Your task to perform on an android device: Clear the shopping cart on newegg.com. Image 0: 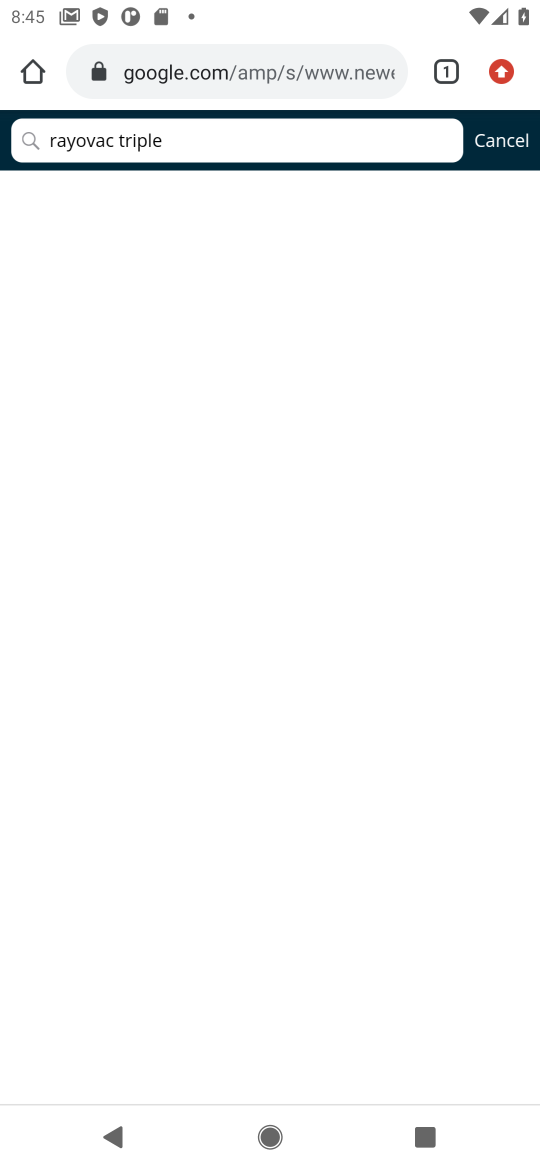
Step 0: click (457, 885)
Your task to perform on an android device: Clear the shopping cart on newegg.com. Image 1: 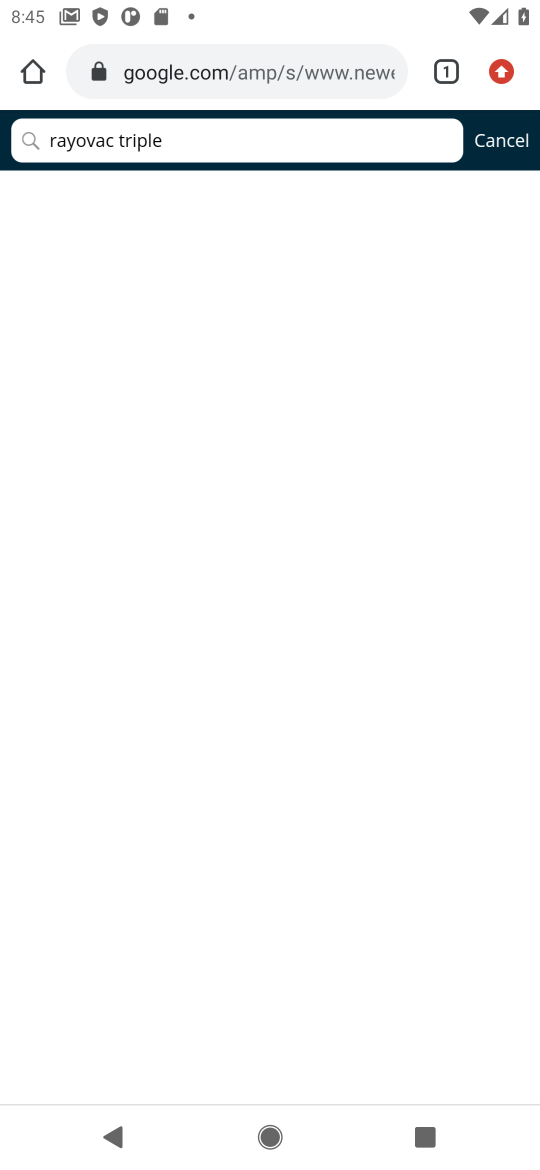
Step 1: click (249, 60)
Your task to perform on an android device: Clear the shopping cart on newegg.com. Image 2: 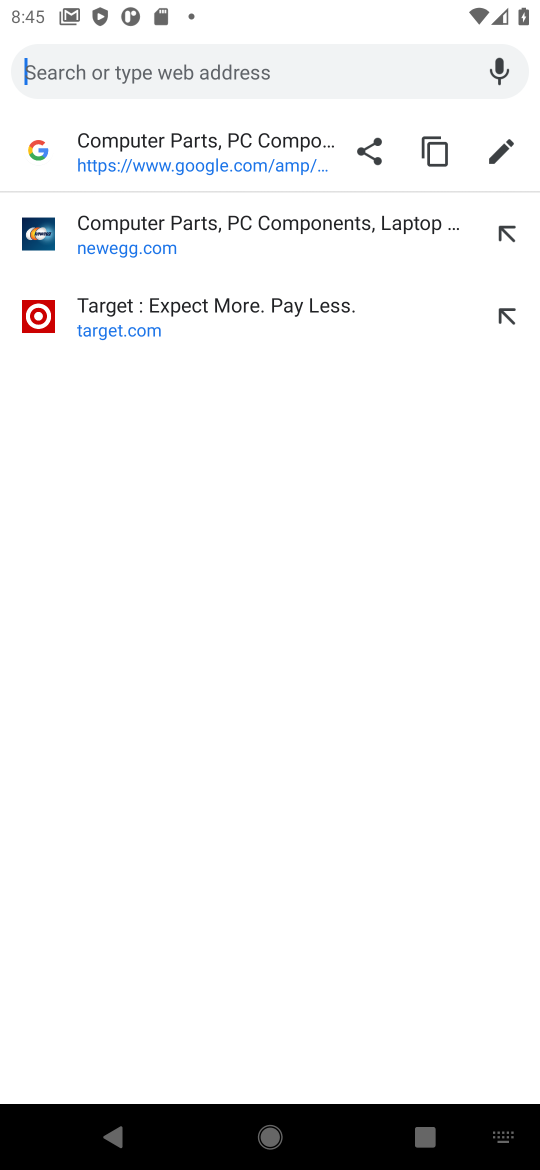
Step 2: type "newegg"
Your task to perform on an android device: Clear the shopping cart on newegg.com. Image 3: 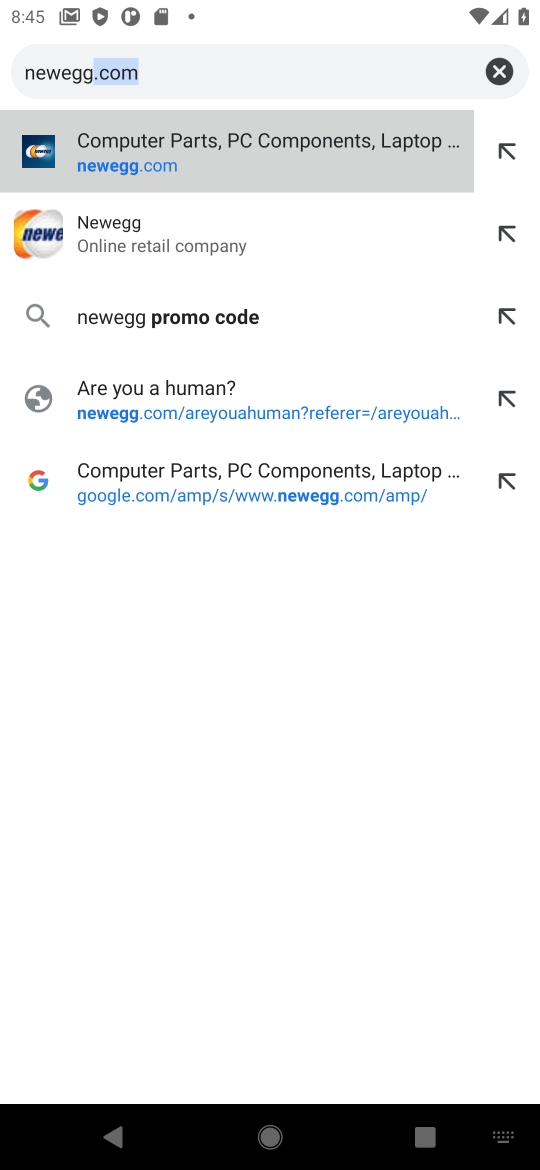
Step 3: type ""
Your task to perform on an android device: Clear the shopping cart on newegg.com. Image 4: 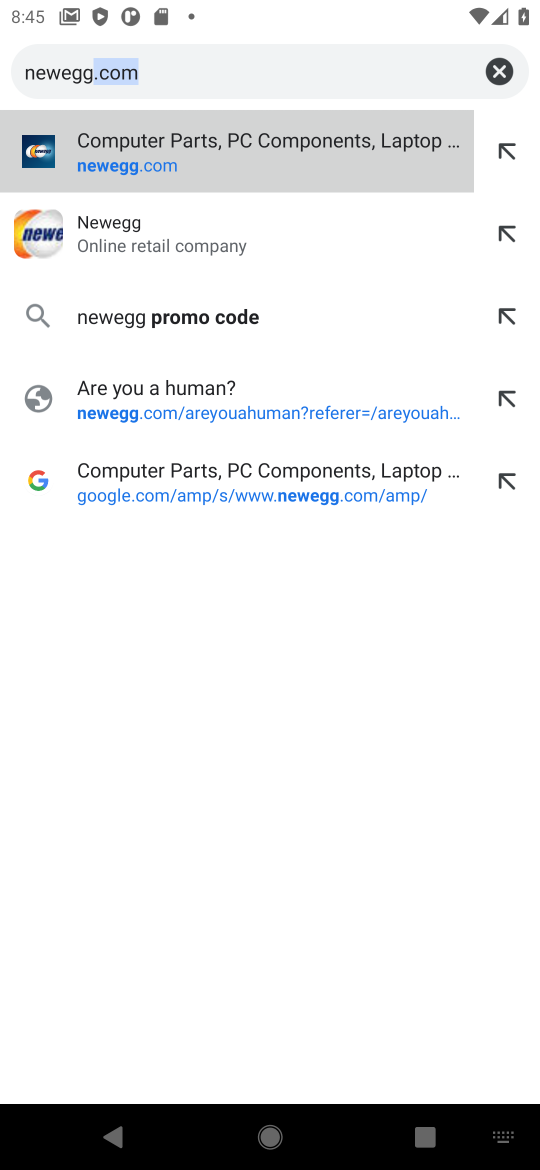
Step 4: click (173, 259)
Your task to perform on an android device: Clear the shopping cart on newegg.com. Image 5: 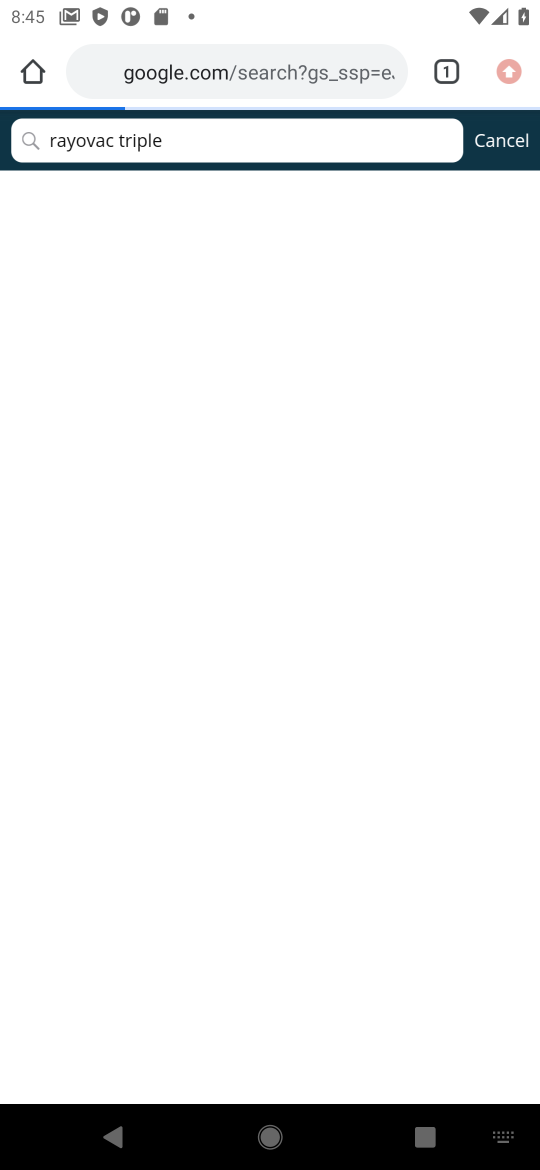
Step 5: click (176, 243)
Your task to perform on an android device: Clear the shopping cart on newegg.com. Image 6: 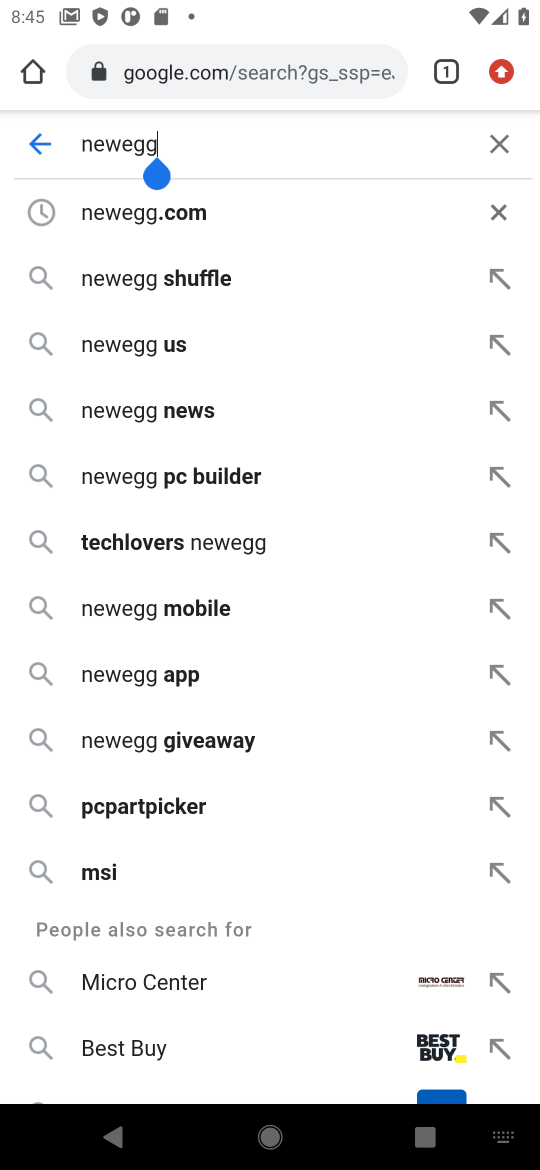
Step 6: click (139, 337)
Your task to perform on an android device: Clear the shopping cart on newegg.com. Image 7: 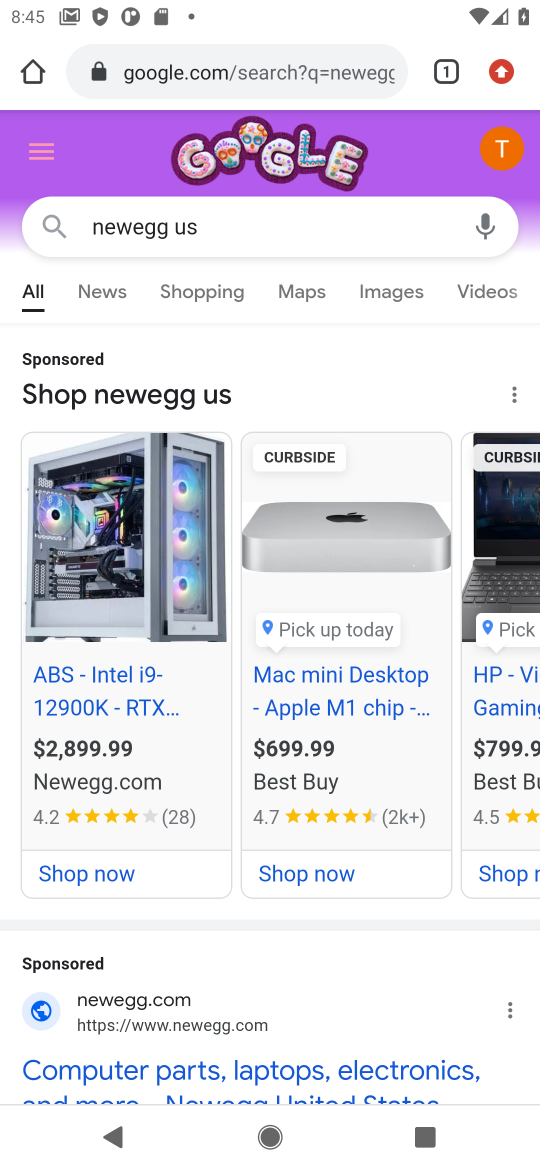
Step 7: drag from (119, 801) to (117, 324)
Your task to perform on an android device: Clear the shopping cart on newegg.com. Image 8: 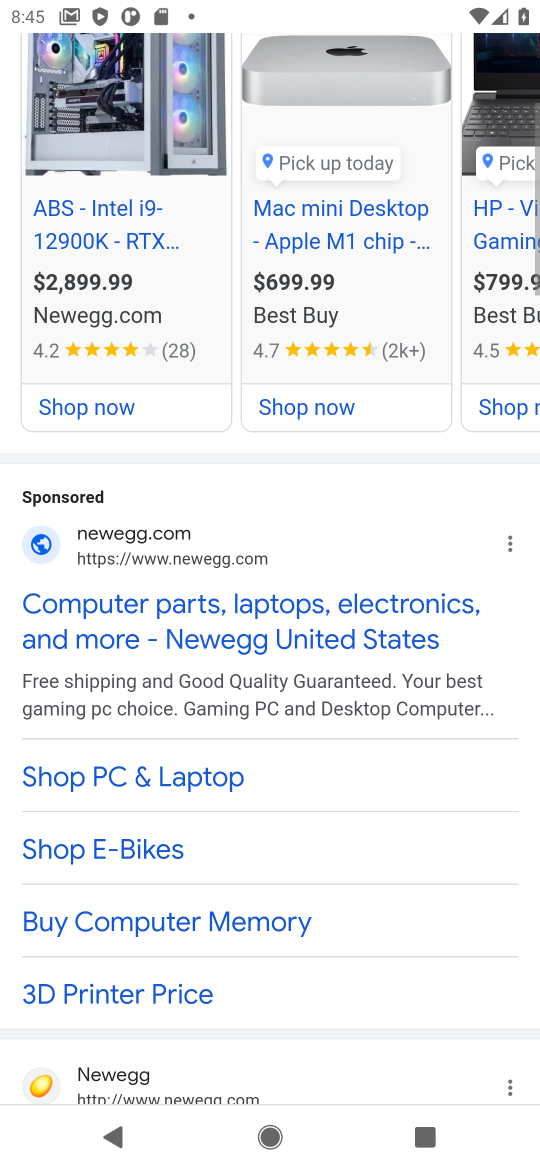
Step 8: drag from (207, 750) to (303, 363)
Your task to perform on an android device: Clear the shopping cart on newegg.com. Image 9: 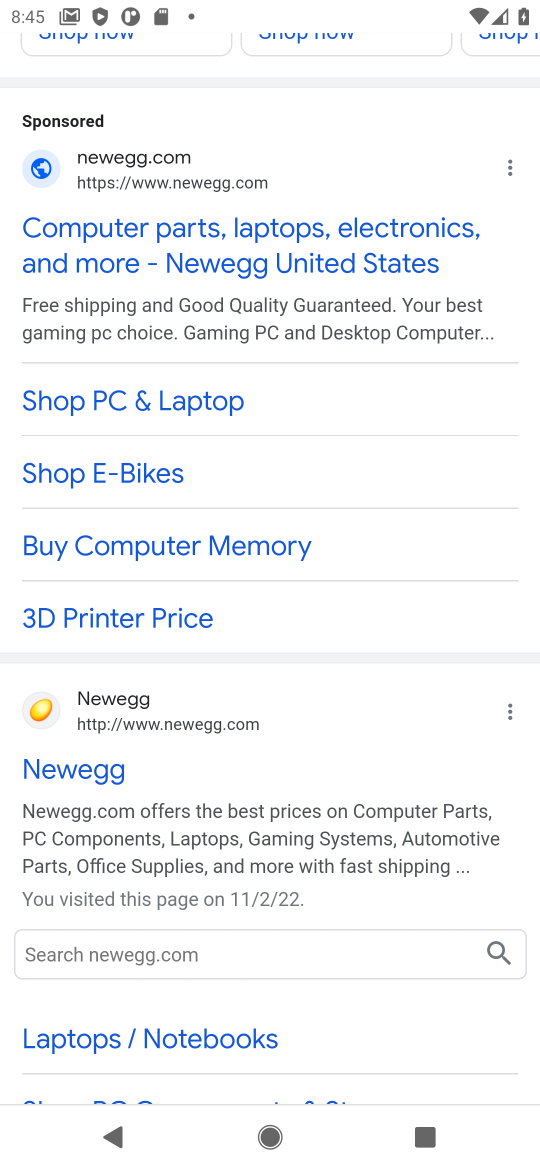
Step 9: click (85, 769)
Your task to perform on an android device: Clear the shopping cart on newegg.com. Image 10: 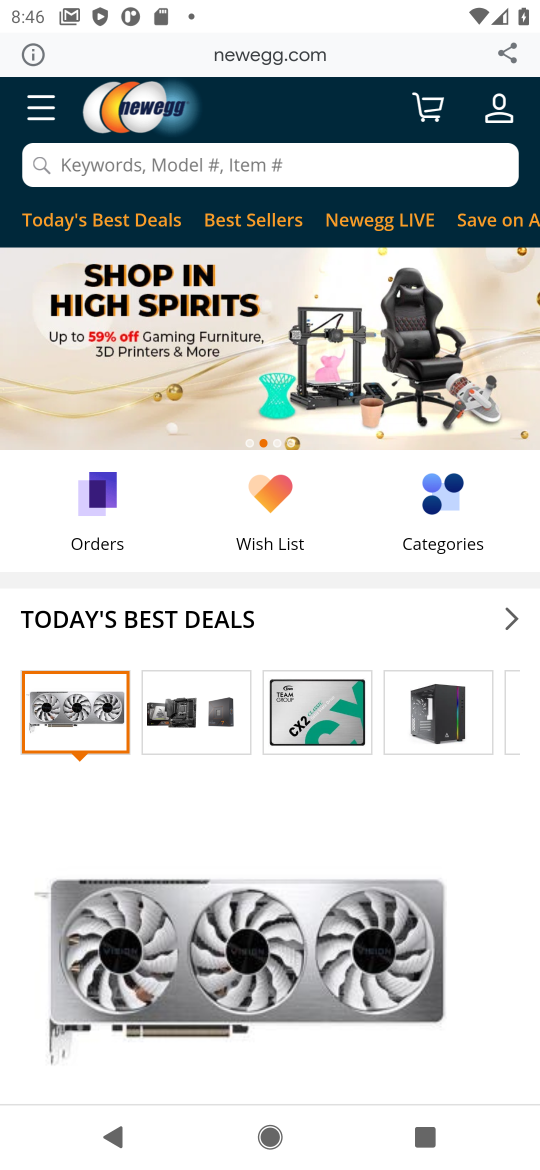
Step 10: click (436, 98)
Your task to perform on an android device: Clear the shopping cart on newegg.com. Image 11: 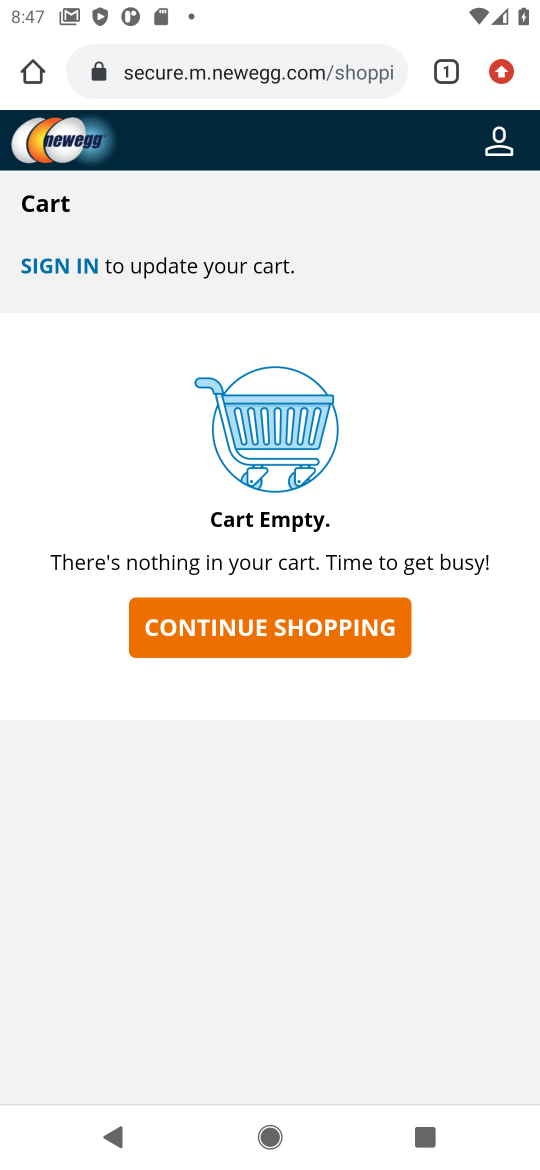
Step 11: task complete